Your task to perform on an android device: find which apps use the phone's location Image 0: 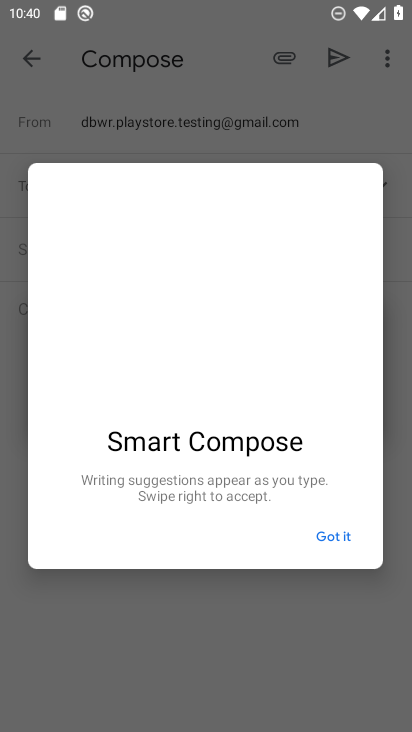
Step 0: press back button
Your task to perform on an android device: find which apps use the phone's location Image 1: 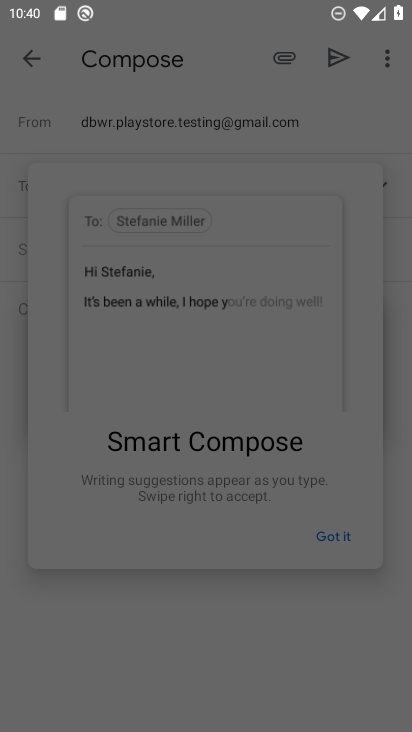
Step 1: press back button
Your task to perform on an android device: find which apps use the phone's location Image 2: 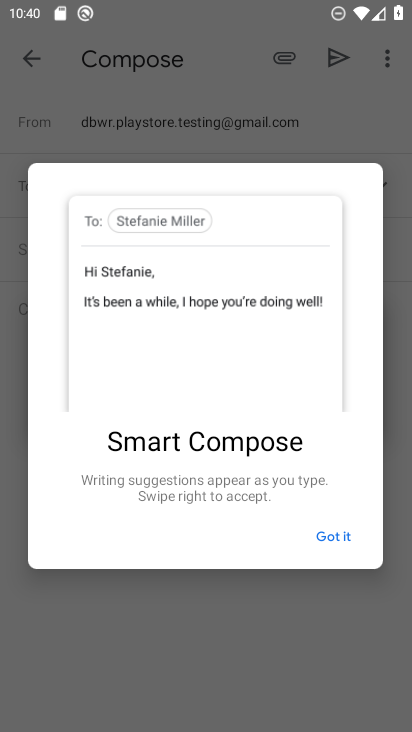
Step 2: press home button
Your task to perform on an android device: find which apps use the phone's location Image 3: 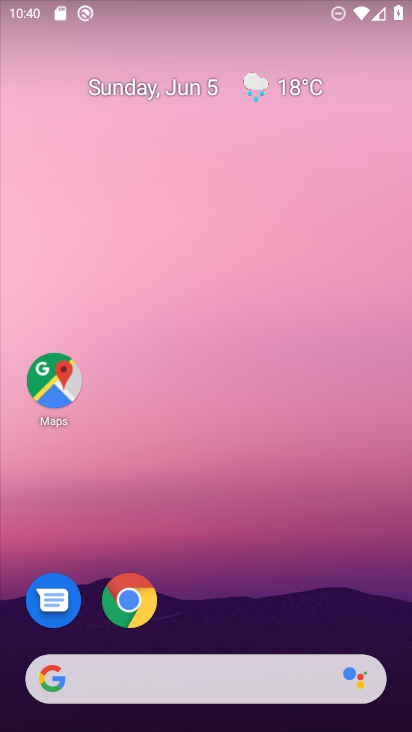
Step 3: drag from (206, 651) to (263, 63)
Your task to perform on an android device: find which apps use the phone's location Image 4: 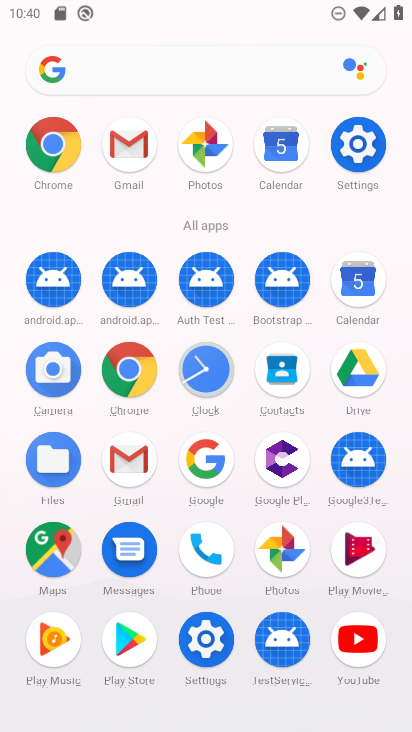
Step 4: click (361, 150)
Your task to perform on an android device: find which apps use the phone's location Image 5: 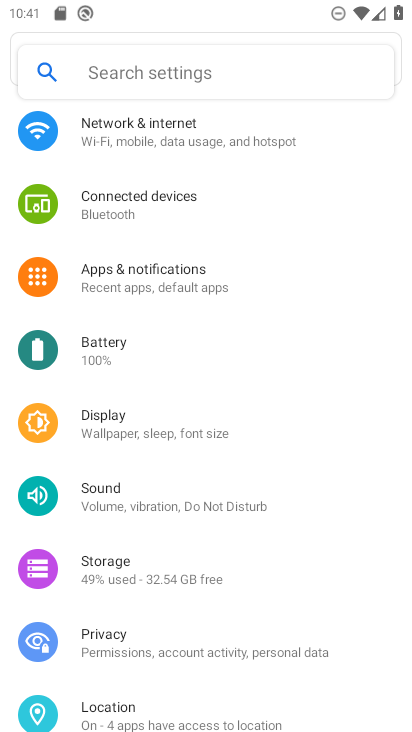
Step 5: click (137, 709)
Your task to perform on an android device: find which apps use the phone's location Image 6: 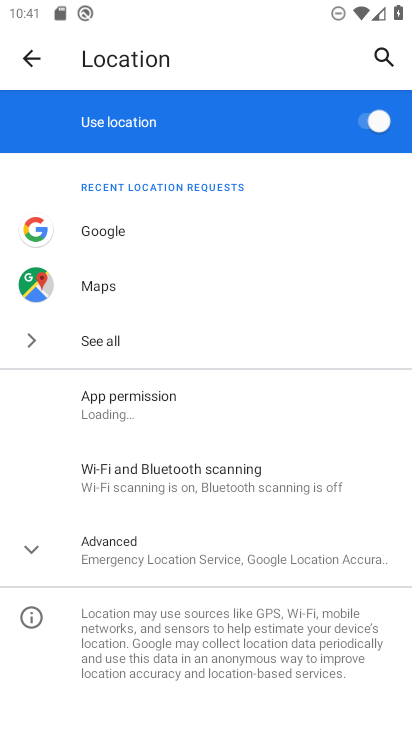
Step 6: click (177, 411)
Your task to perform on an android device: find which apps use the phone's location Image 7: 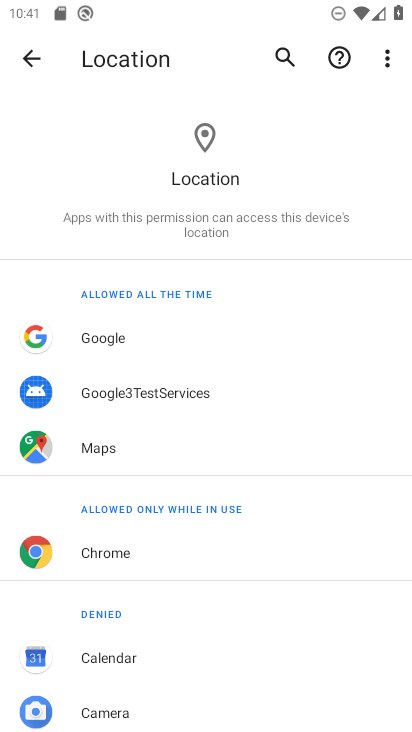
Step 7: task complete